Your task to perform on an android device: Open Amazon Image 0: 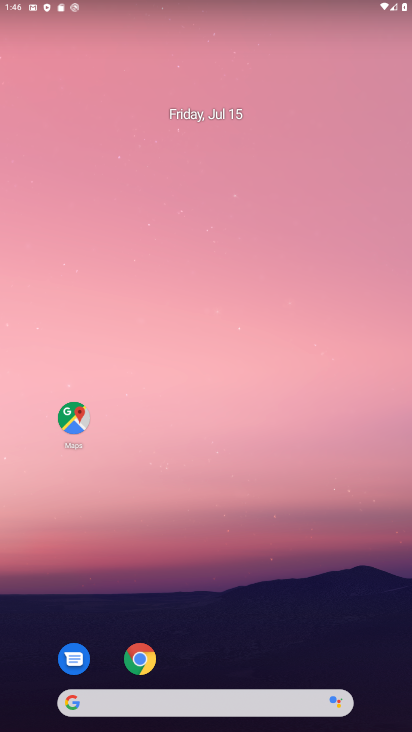
Step 0: drag from (239, 635) to (149, 2)
Your task to perform on an android device: Open Amazon Image 1: 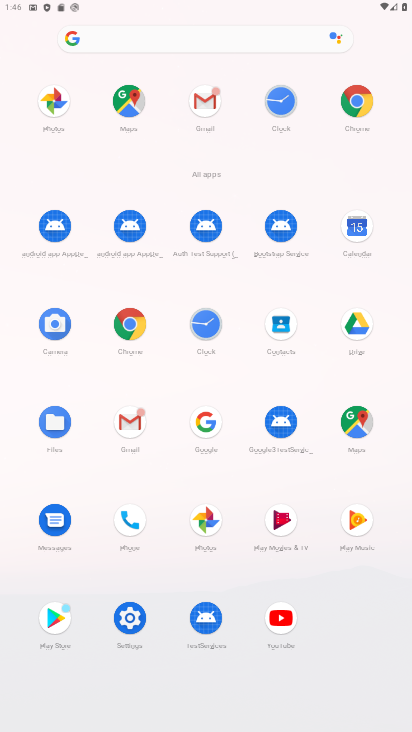
Step 1: click (135, 328)
Your task to perform on an android device: Open Amazon Image 2: 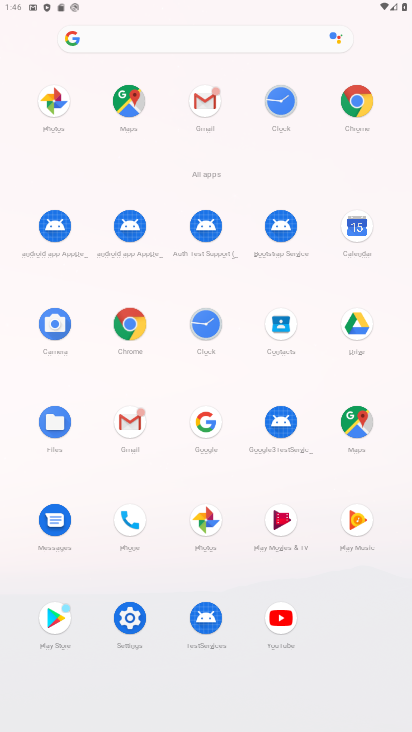
Step 2: click (138, 330)
Your task to perform on an android device: Open Amazon Image 3: 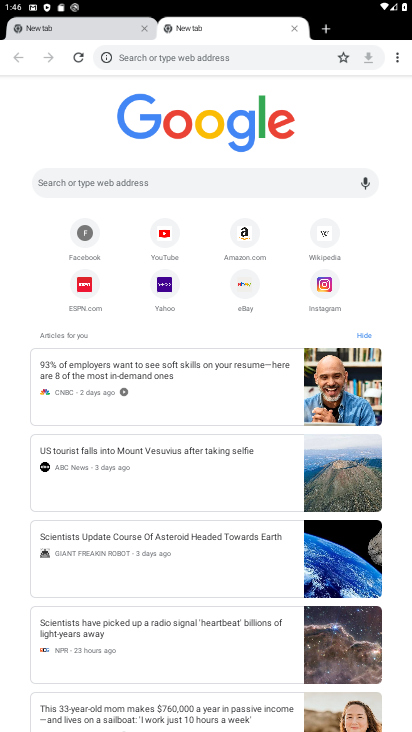
Step 3: click (228, 230)
Your task to perform on an android device: Open Amazon Image 4: 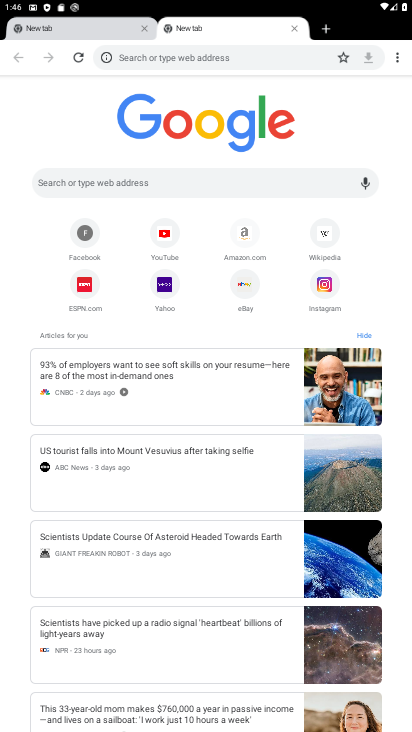
Step 4: click (243, 239)
Your task to perform on an android device: Open Amazon Image 5: 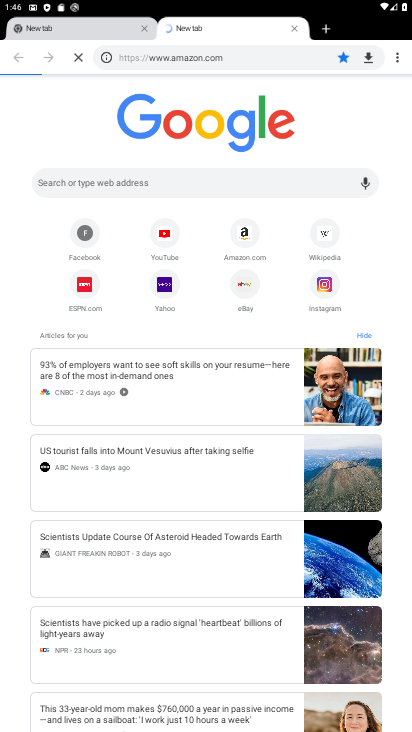
Step 5: click (243, 237)
Your task to perform on an android device: Open Amazon Image 6: 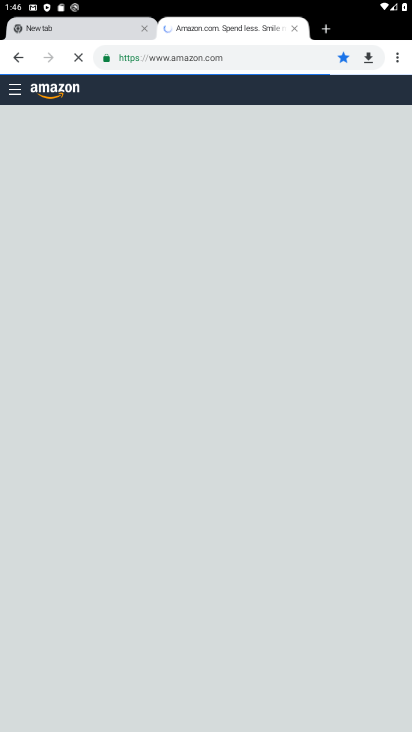
Step 6: task complete